Your task to perform on an android device: manage bookmarks in the chrome app Image 0: 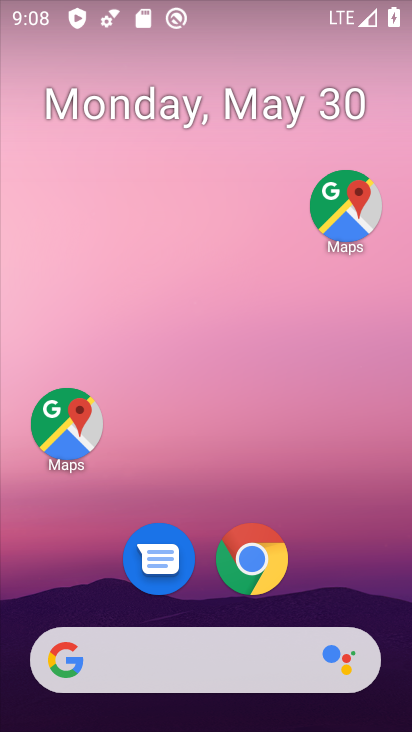
Step 0: drag from (343, 541) to (373, 64)
Your task to perform on an android device: manage bookmarks in the chrome app Image 1: 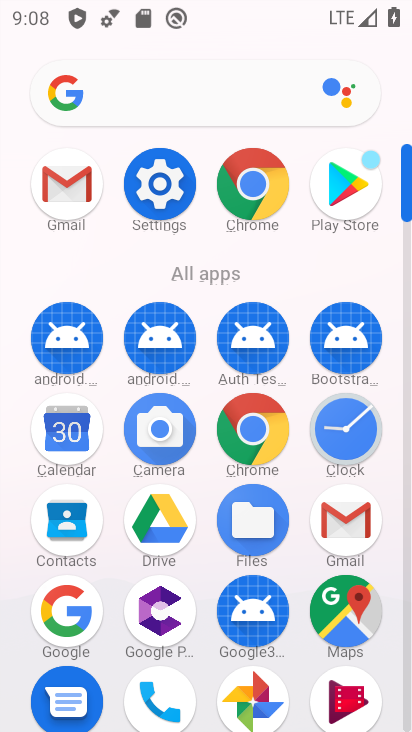
Step 1: click (259, 431)
Your task to perform on an android device: manage bookmarks in the chrome app Image 2: 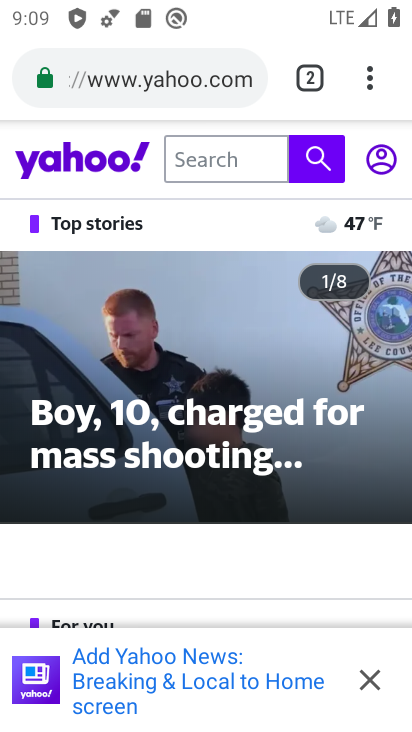
Step 2: drag from (373, 70) to (105, 294)
Your task to perform on an android device: manage bookmarks in the chrome app Image 3: 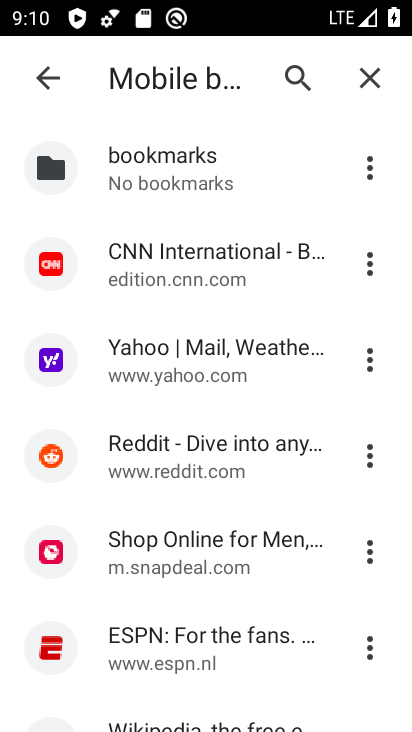
Step 3: click (373, 258)
Your task to perform on an android device: manage bookmarks in the chrome app Image 4: 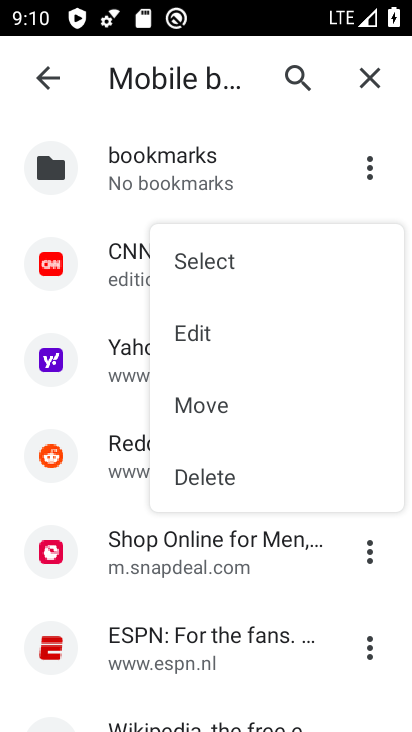
Step 4: click (217, 474)
Your task to perform on an android device: manage bookmarks in the chrome app Image 5: 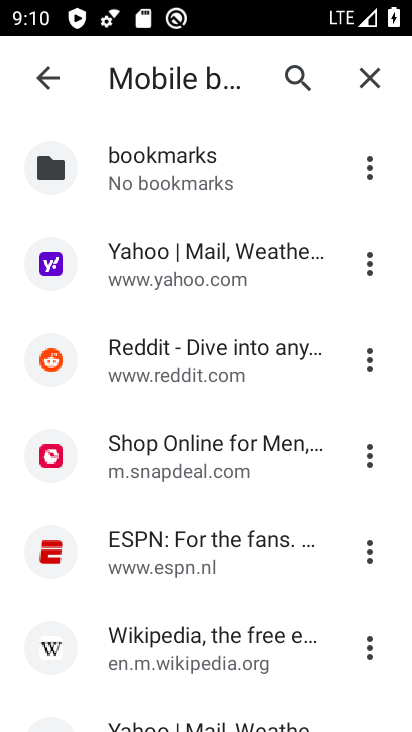
Step 5: task complete